Your task to perform on an android device: What's on my calendar tomorrow? Image 0: 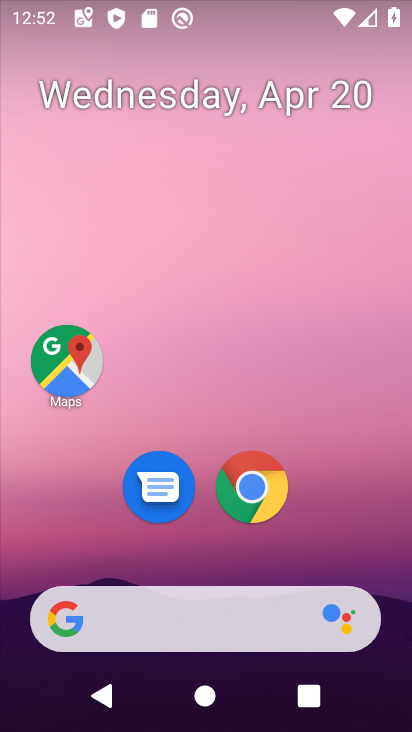
Step 0: drag from (371, 568) to (191, 42)
Your task to perform on an android device: What's on my calendar tomorrow? Image 1: 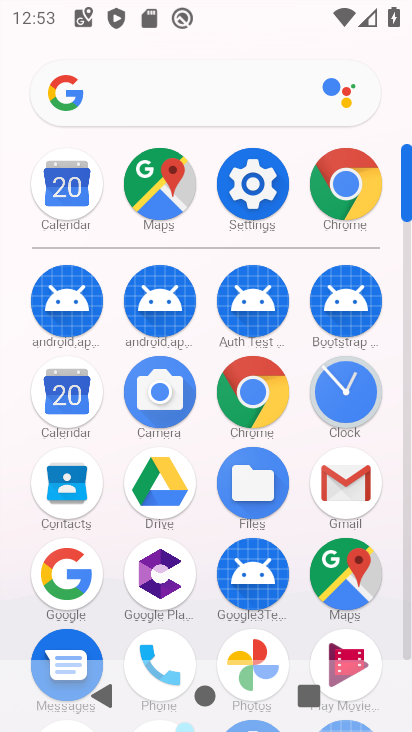
Step 1: click (46, 403)
Your task to perform on an android device: What's on my calendar tomorrow? Image 2: 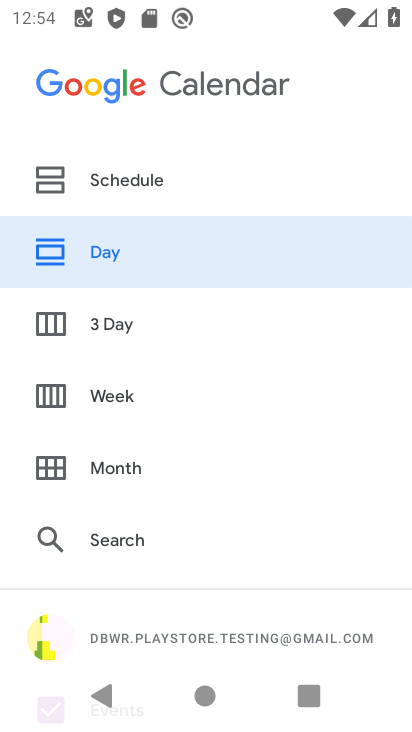
Step 2: press back button
Your task to perform on an android device: What's on my calendar tomorrow? Image 3: 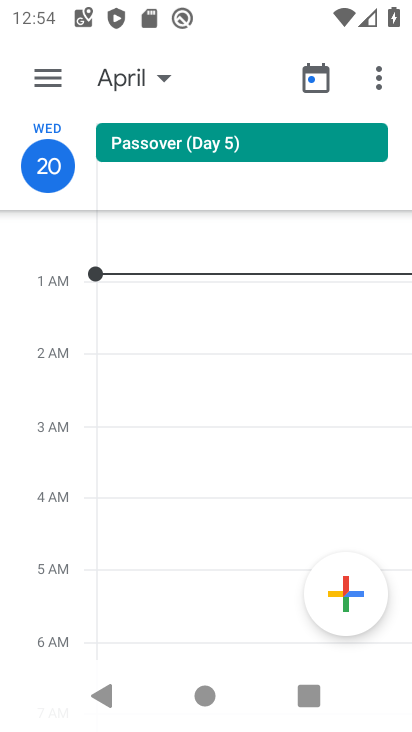
Step 3: click (121, 81)
Your task to perform on an android device: What's on my calendar tomorrow? Image 4: 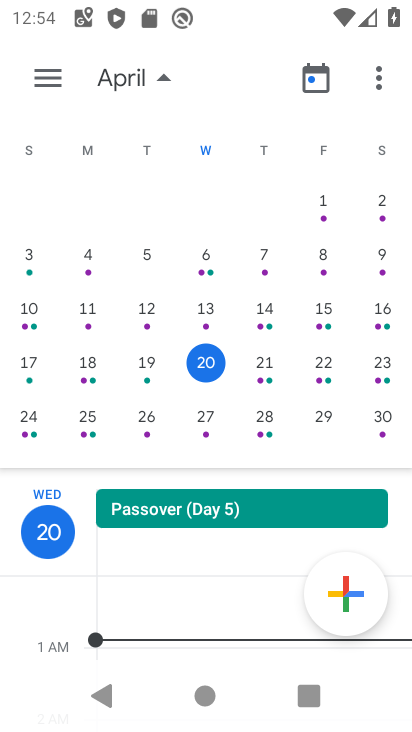
Step 4: click (256, 363)
Your task to perform on an android device: What's on my calendar tomorrow? Image 5: 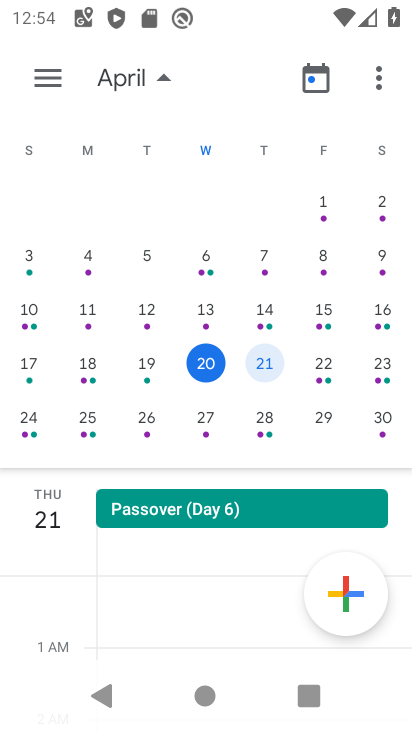
Step 5: task complete